Your task to perform on an android device: turn vacation reply on in the gmail app Image 0: 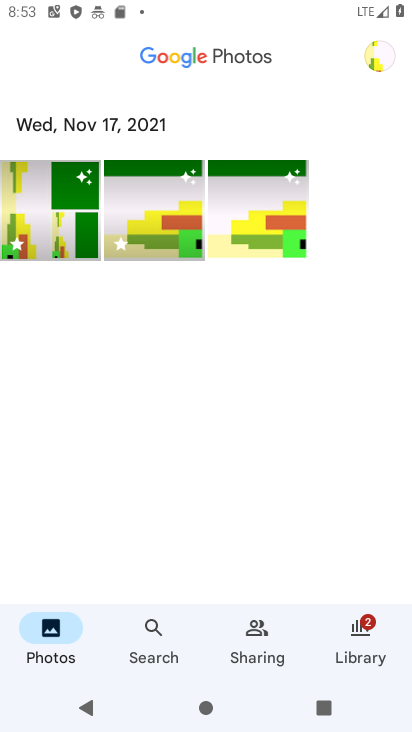
Step 0: press home button
Your task to perform on an android device: turn vacation reply on in the gmail app Image 1: 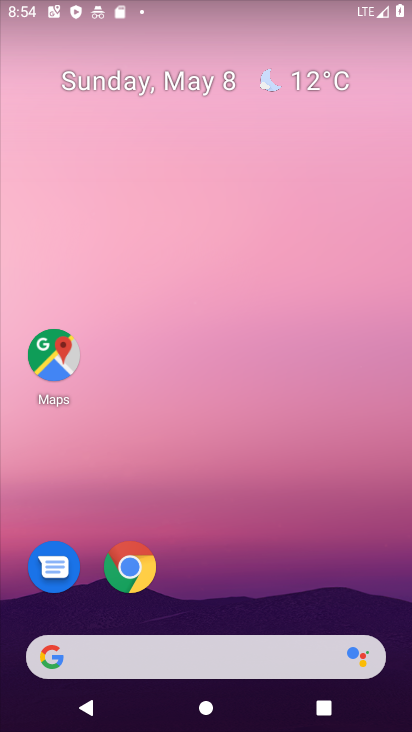
Step 1: drag from (176, 666) to (224, 151)
Your task to perform on an android device: turn vacation reply on in the gmail app Image 2: 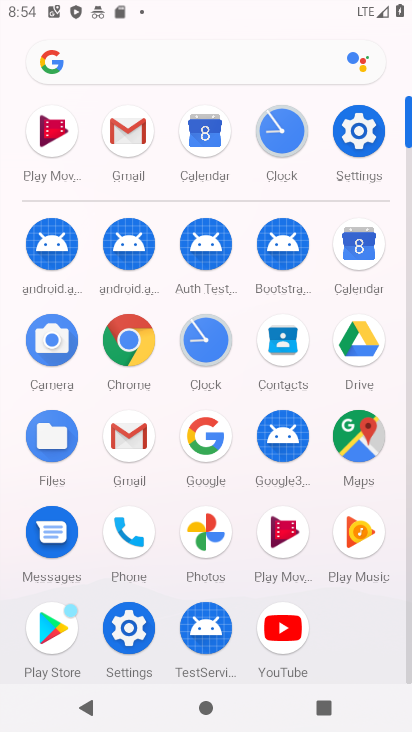
Step 2: click (136, 438)
Your task to perform on an android device: turn vacation reply on in the gmail app Image 3: 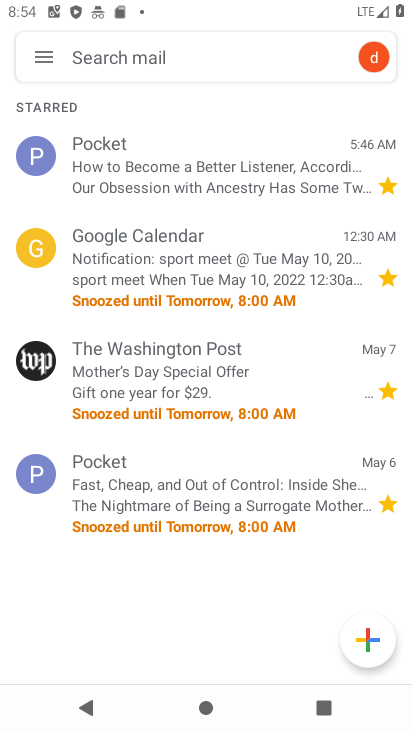
Step 3: click (54, 61)
Your task to perform on an android device: turn vacation reply on in the gmail app Image 4: 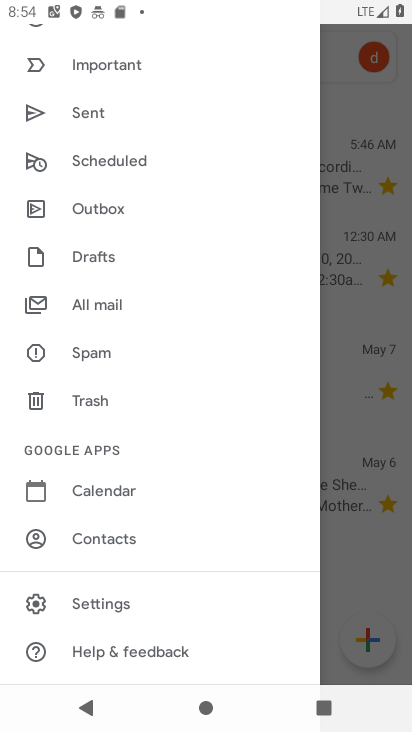
Step 4: click (136, 615)
Your task to perform on an android device: turn vacation reply on in the gmail app Image 5: 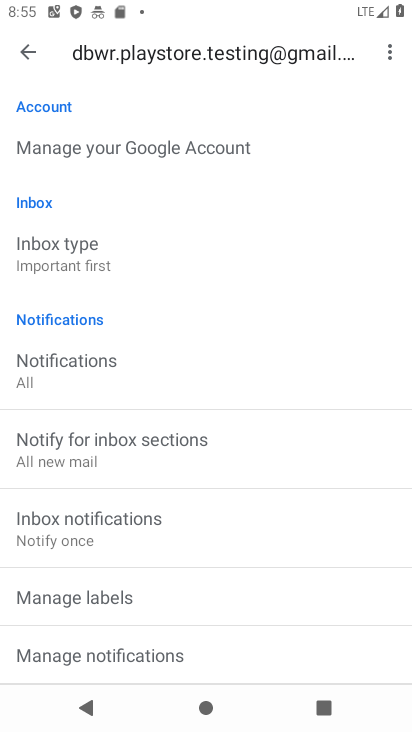
Step 5: drag from (136, 614) to (100, 145)
Your task to perform on an android device: turn vacation reply on in the gmail app Image 6: 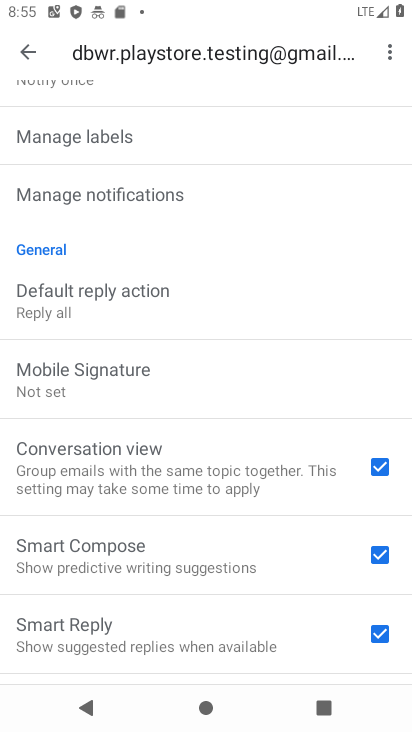
Step 6: drag from (250, 582) to (221, 135)
Your task to perform on an android device: turn vacation reply on in the gmail app Image 7: 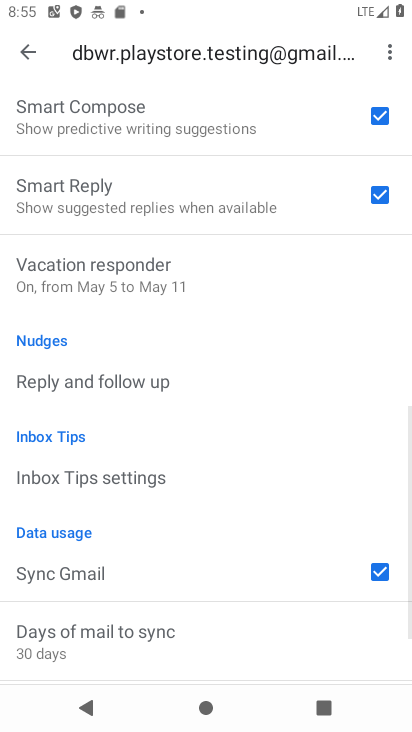
Step 7: click (125, 273)
Your task to perform on an android device: turn vacation reply on in the gmail app Image 8: 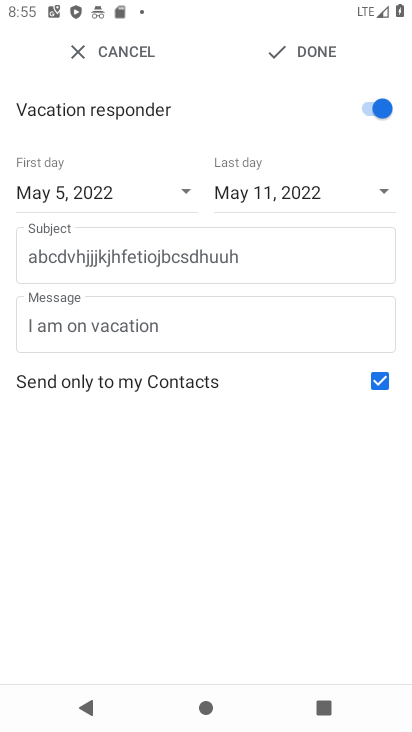
Step 8: task complete